Your task to perform on an android device: Open my contact list Image 0: 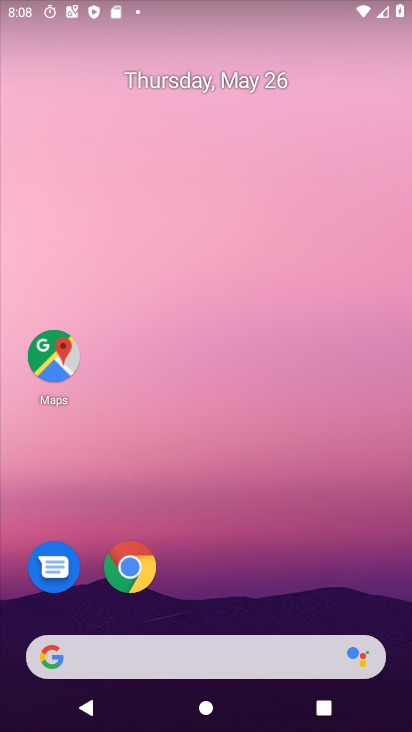
Step 0: press home button
Your task to perform on an android device: Open my contact list Image 1: 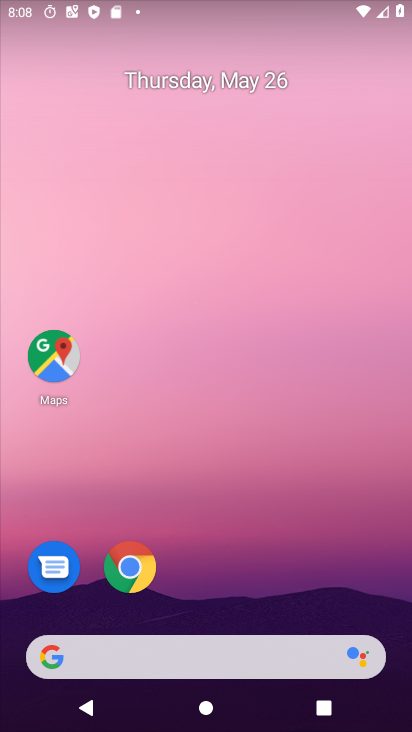
Step 1: drag from (203, 652) to (365, 81)
Your task to perform on an android device: Open my contact list Image 2: 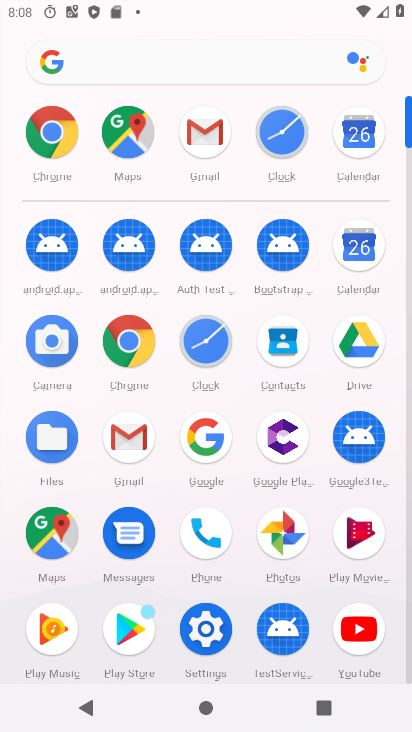
Step 2: click (285, 339)
Your task to perform on an android device: Open my contact list Image 3: 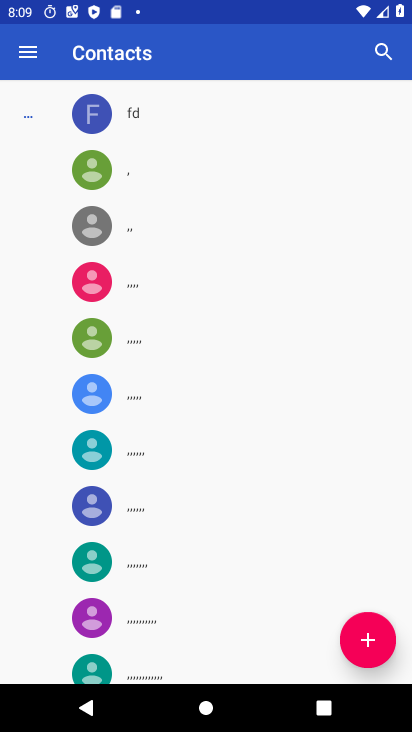
Step 3: task complete